Your task to perform on an android device: turn on javascript in the chrome app Image 0: 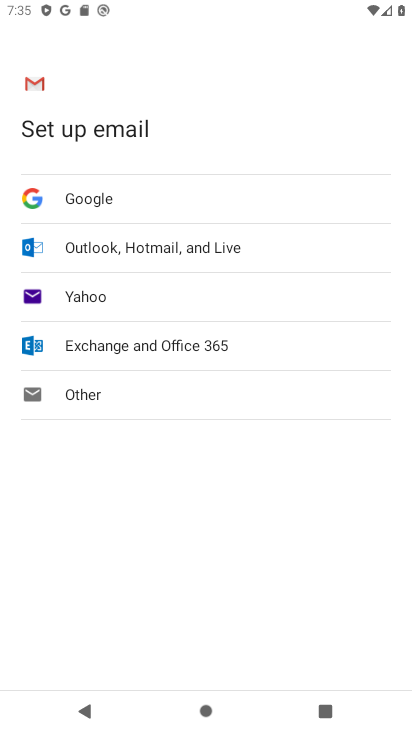
Step 0: press home button
Your task to perform on an android device: turn on javascript in the chrome app Image 1: 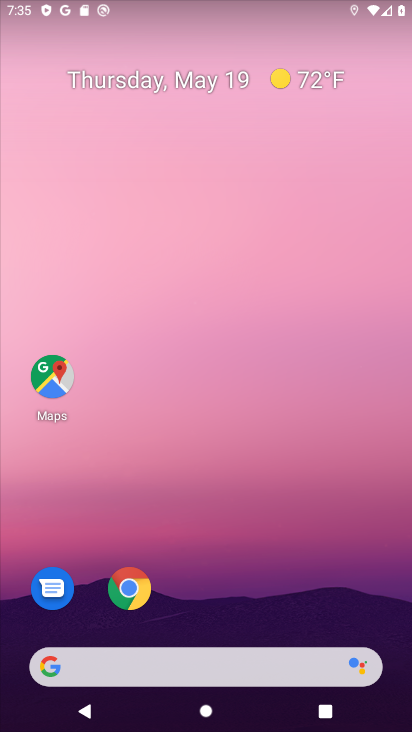
Step 1: click (124, 591)
Your task to perform on an android device: turn on javascript in the chrome app Image 2: 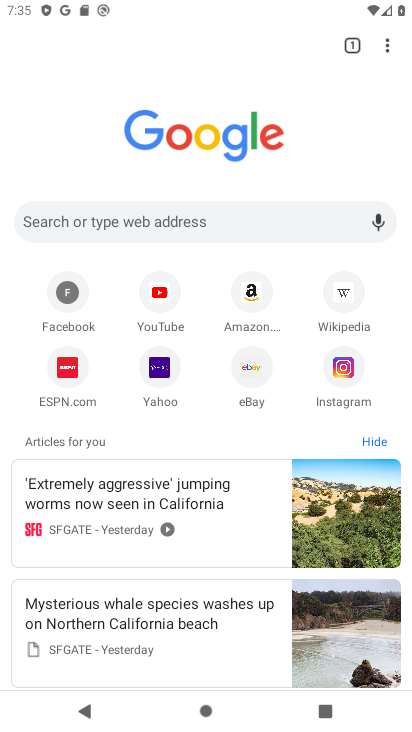
Step 2: click (393, 56)
Your task to perform on an android device: turn on javascript in the chrome app Image 3: 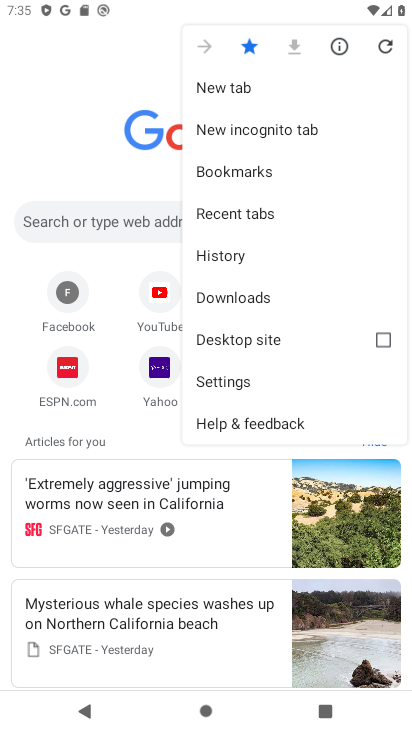
Step 3: click (242, 376)
Your task to perform on an android device: turn on javascript in the chrome app Image 4: 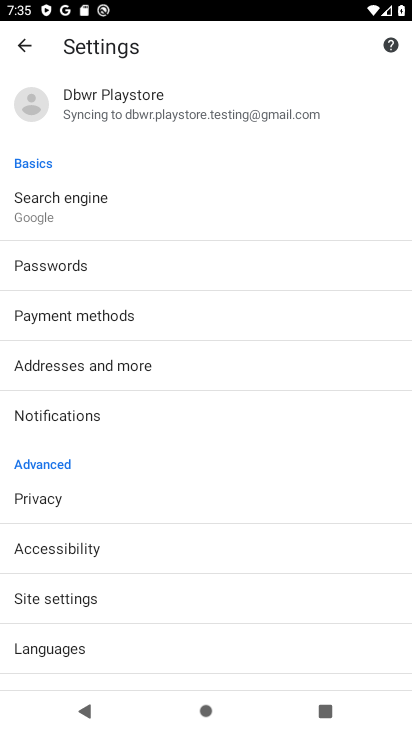
Step 4: click (130, 596)
Your task to perform on an android device: turn on javascript in the chrome app Image 5: 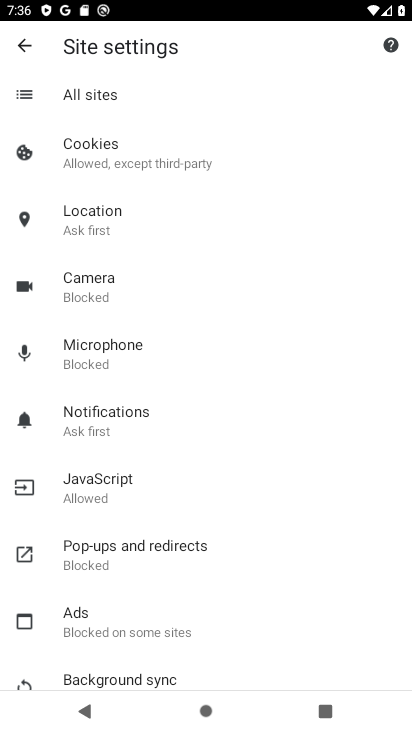
Step 5: click (122, 472)
Your task to perform on an android device: turn on javascript in the chrome app Image 6: 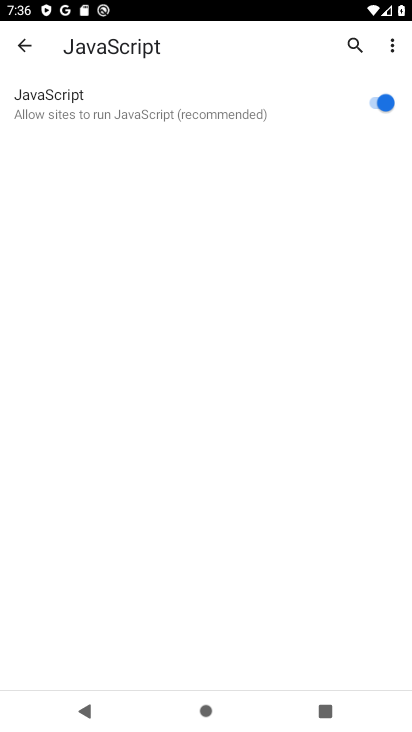
Step 6: task complete